Your task to perform on an android device: Open maps Image 0: 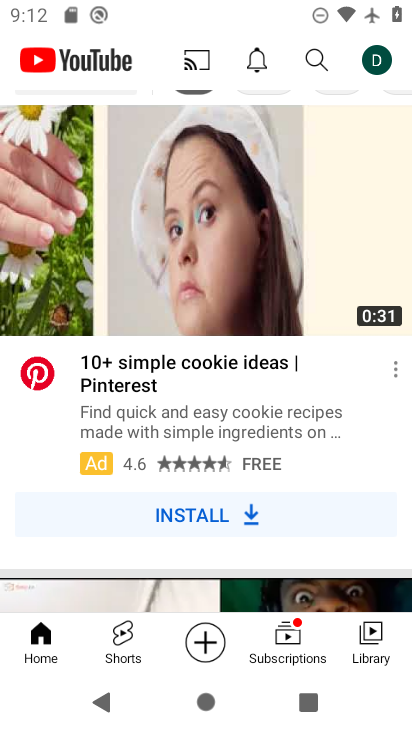
Step 0: press home button
Your task to perform on an android device: Open maps Image 1: 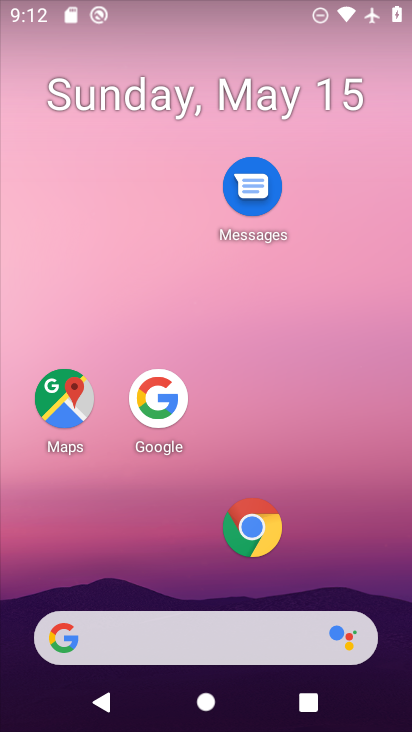
Step 1: click (56, 427)
Your task to perform on an android device: Open maps Image 2: 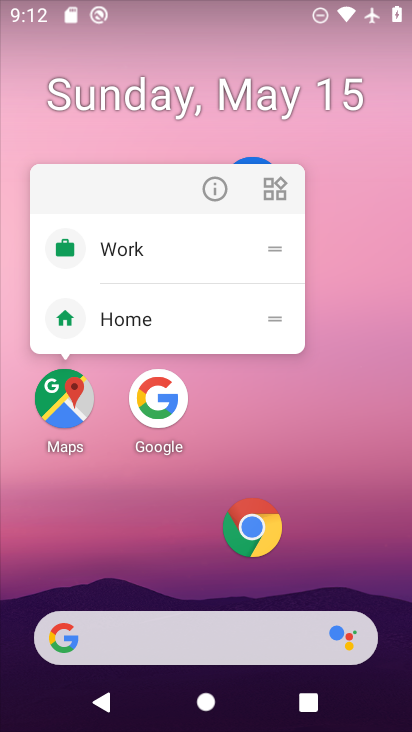
Step 2: click (67, 406)
Your task to perform on an android device: Open maps Image 3: 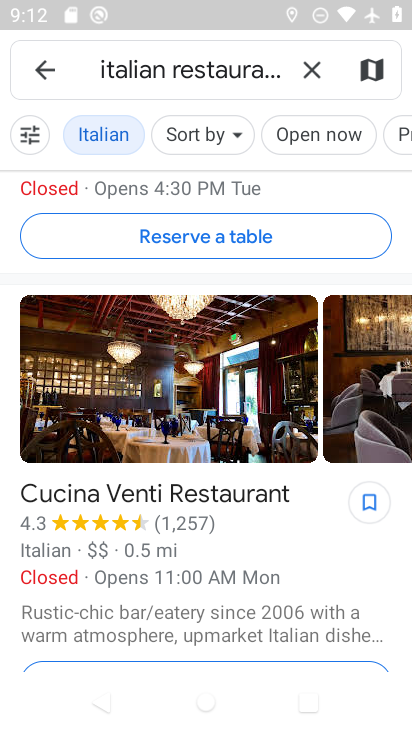
Step 3: task complete